Your task to perform on an android device: Search for "macbook pro 15 inch" on target, select the first entry, add it to the cart, then select checkout. Image 0: 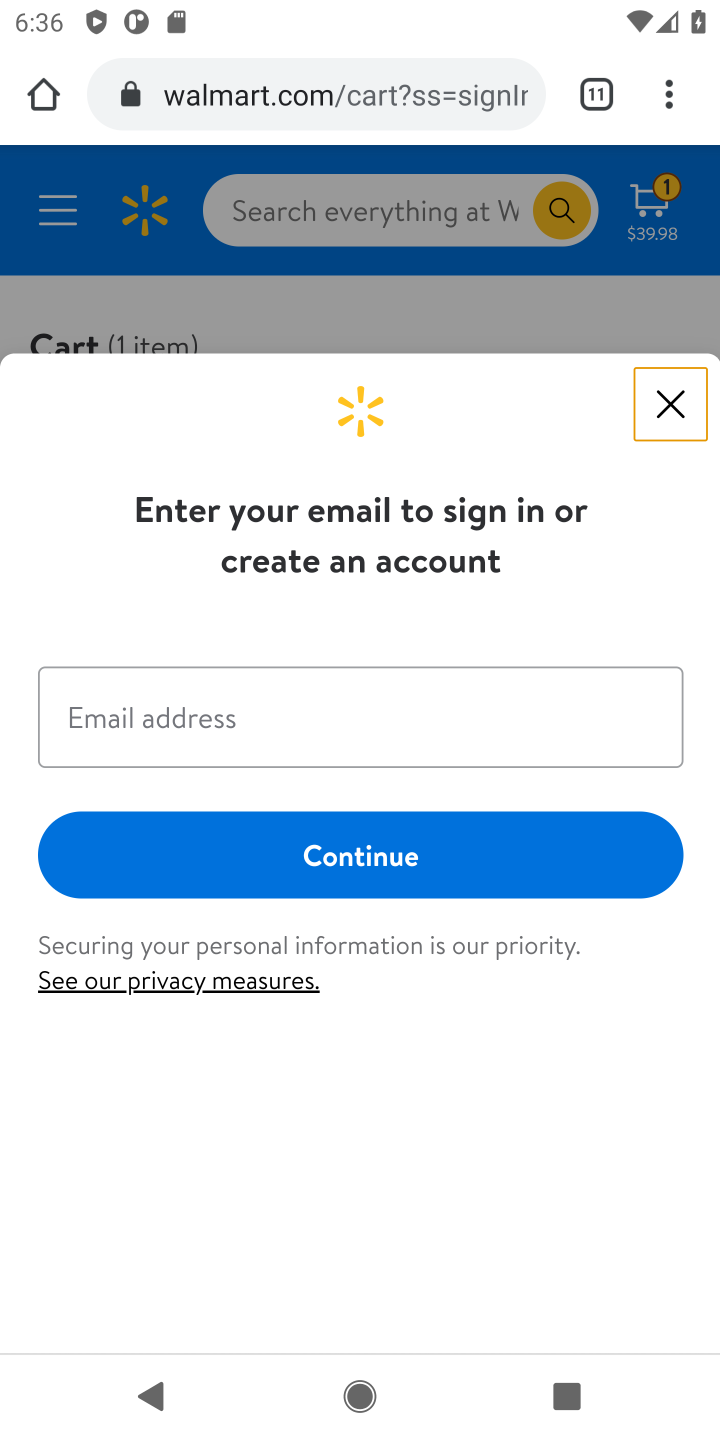
Step 0: press home button
Your task to perform on an android device: Search for "macbook pro 15 inch" on target, select the first entry, add it to the cart, then select checkout. Image 1: 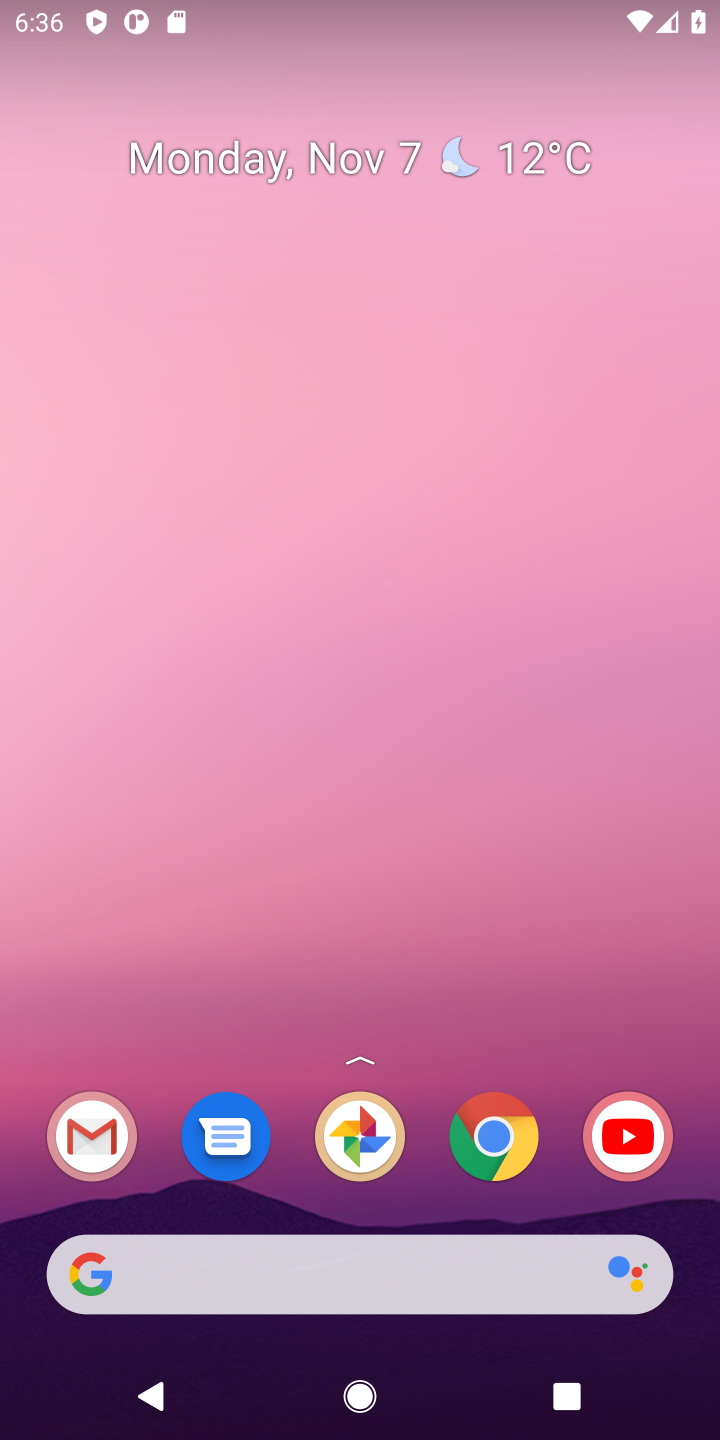
Step 1: click (225, 1269)
Your task to perform on an android device: Search for "macbook pro 15 inch" on target, select the first entry, add it to the cart, then select checkout. Image 2: 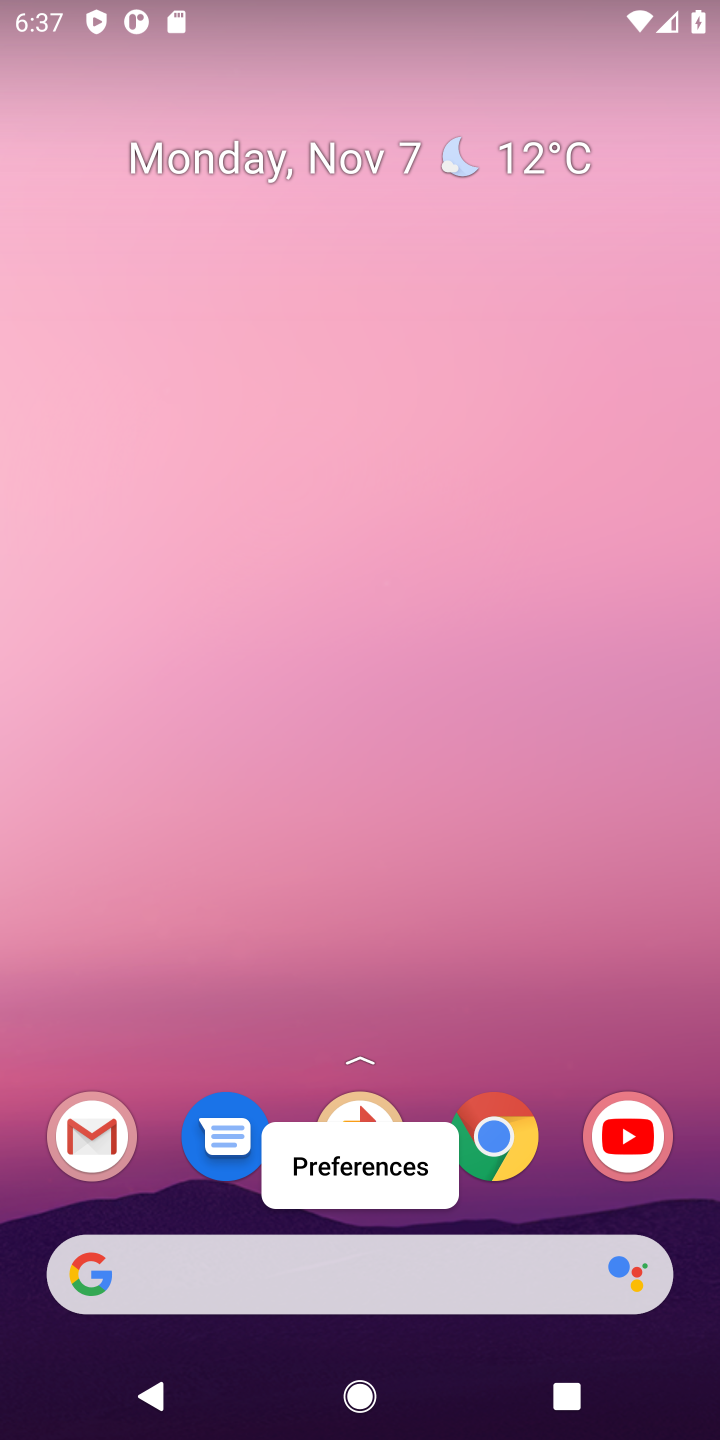
Step 2: click (142, 1273)
Your task to perform on an android device: Search for "macbook pro 15 inch" on target, select the first entry, add it to the cart, then select checkout. Image 3: 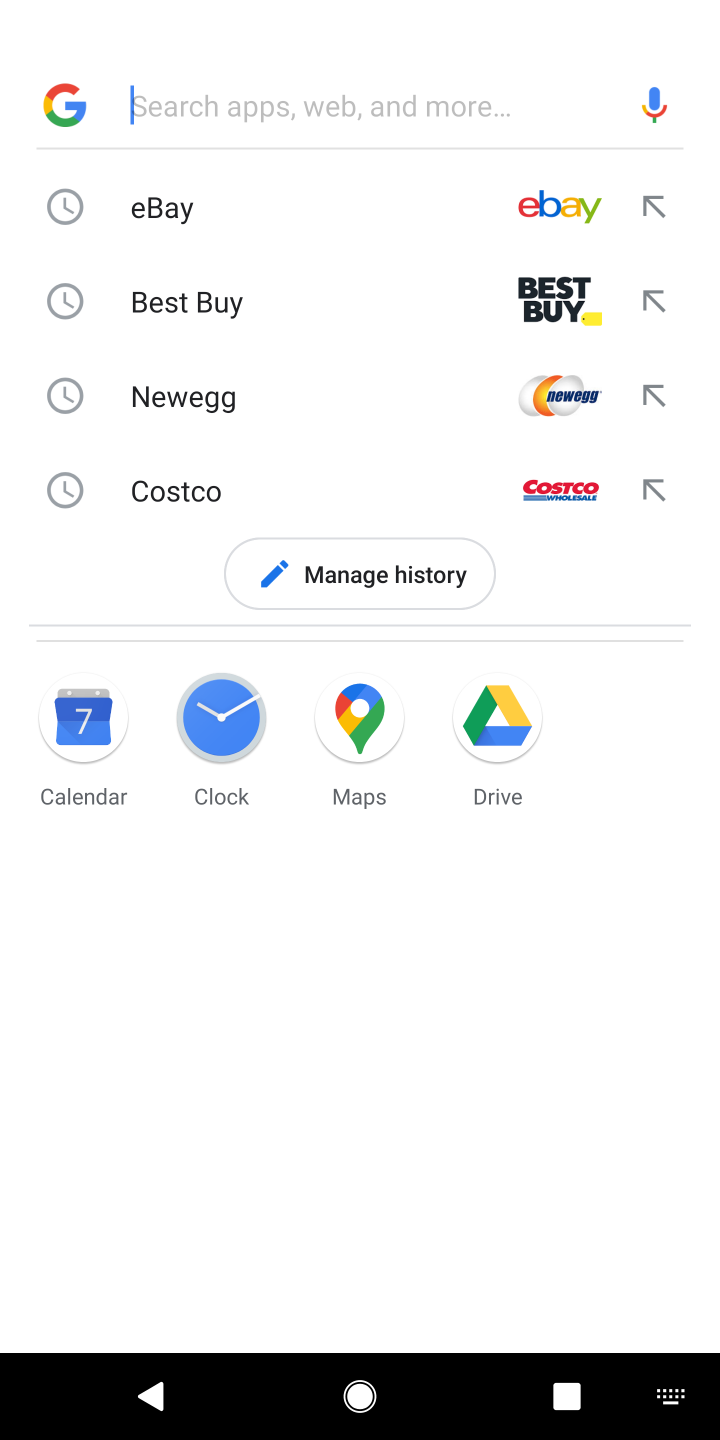
Step 3: type "target"
Your task to perform on an android device: Search for "macbook pro 15 inch" on target, select the first entry, add it to the cart, then select checkout. Image 4: 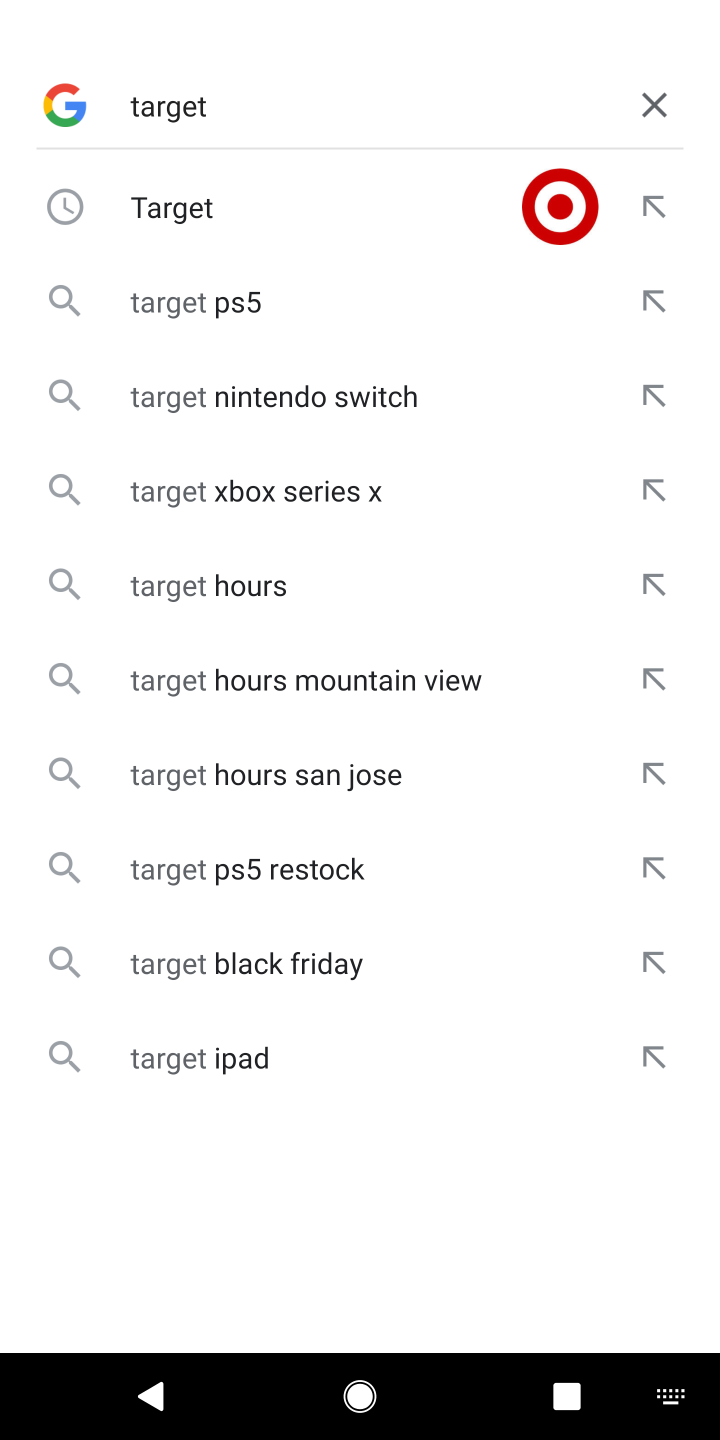
Step 4: type ""
Your task to perform on an android device: Search for "macbook pro 15 inch" on target, select the first entry, add it to the cart, then select checkout. Image 5: 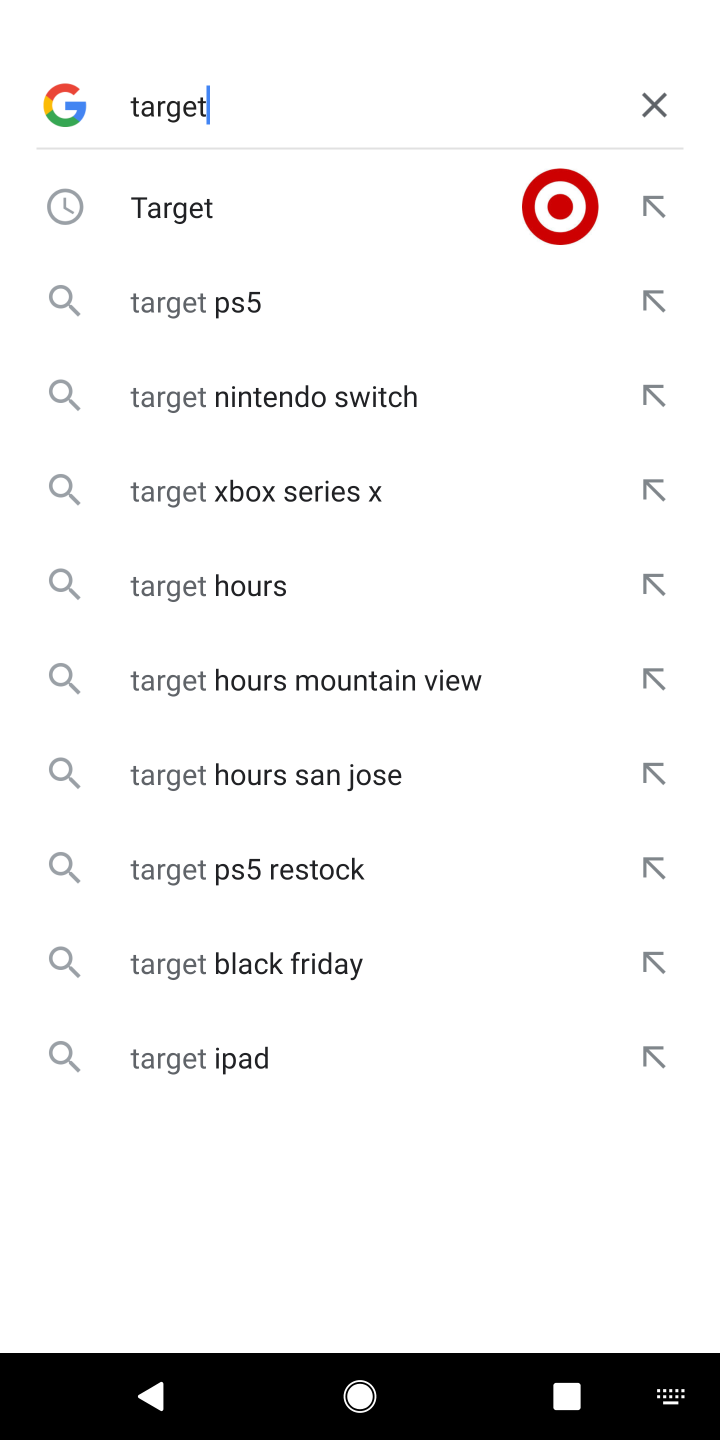
Step 5: click (174, 206)
Your task to perform on an android device: Search for "macbook pro 15 inch" on target, select the first entry, add it to the cart, then select checkout. Image 6: 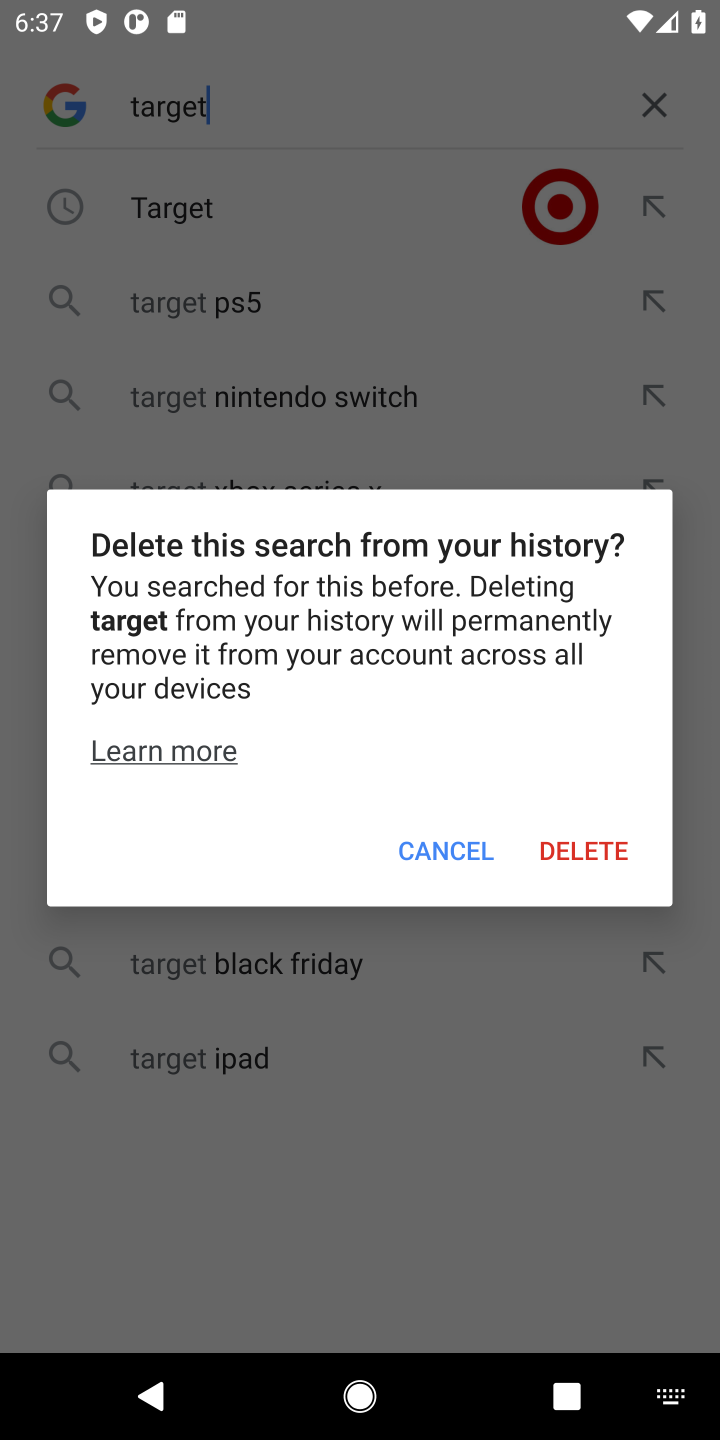
Step 6: click (581, 846)
Your task to perform on an android device: Search for "macbook pro 15 inch" on target, select the first entry, add it to the cart, then select checkout. Image 7: 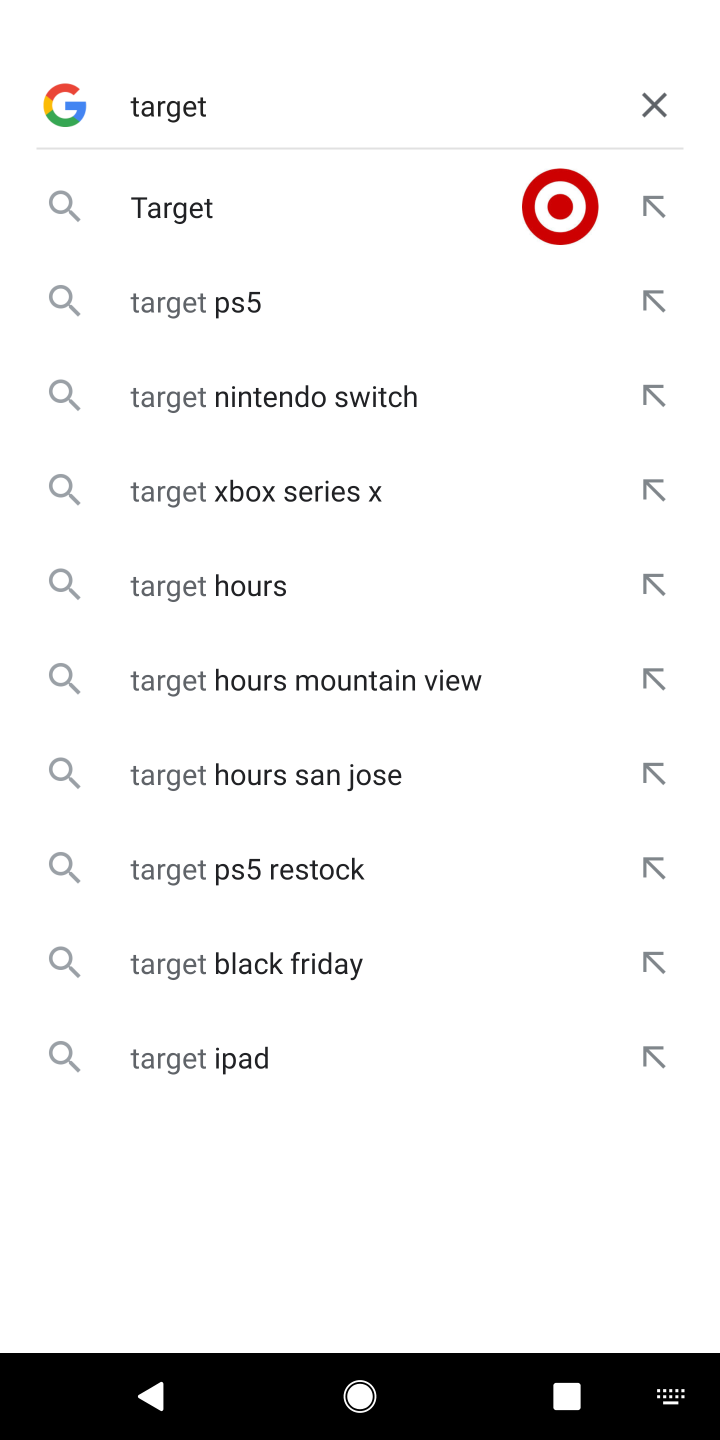
Step 7: click (165, 203)
Your task to perform on an android device: Search for "macbook pro 15 inch" on target, select the first entry, add it to the cart, then select checkout. Image 8: 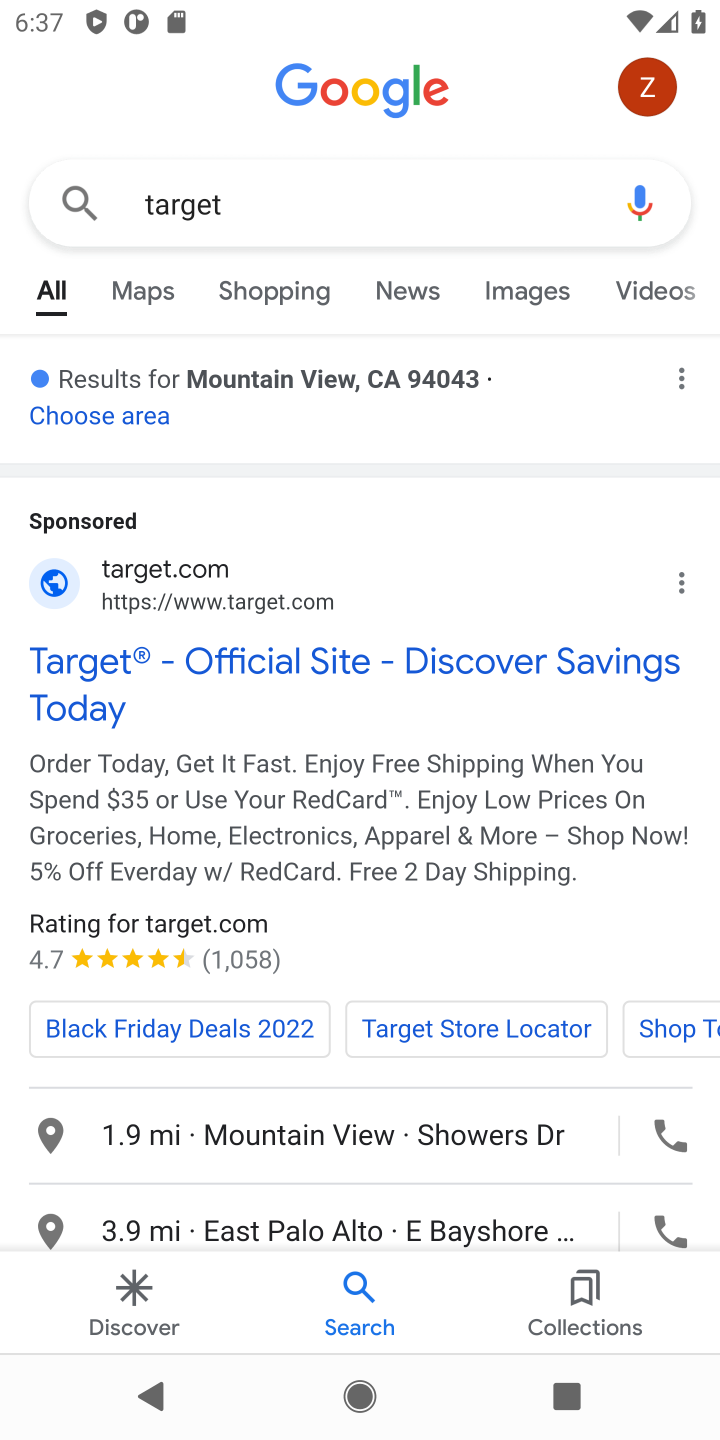
Step 8: click (143, 574)
Your task to perform on an android device: Search for "macbook pro 15 inch" on target, select the first entry, add it to the cart, then select checkout. Image 9: 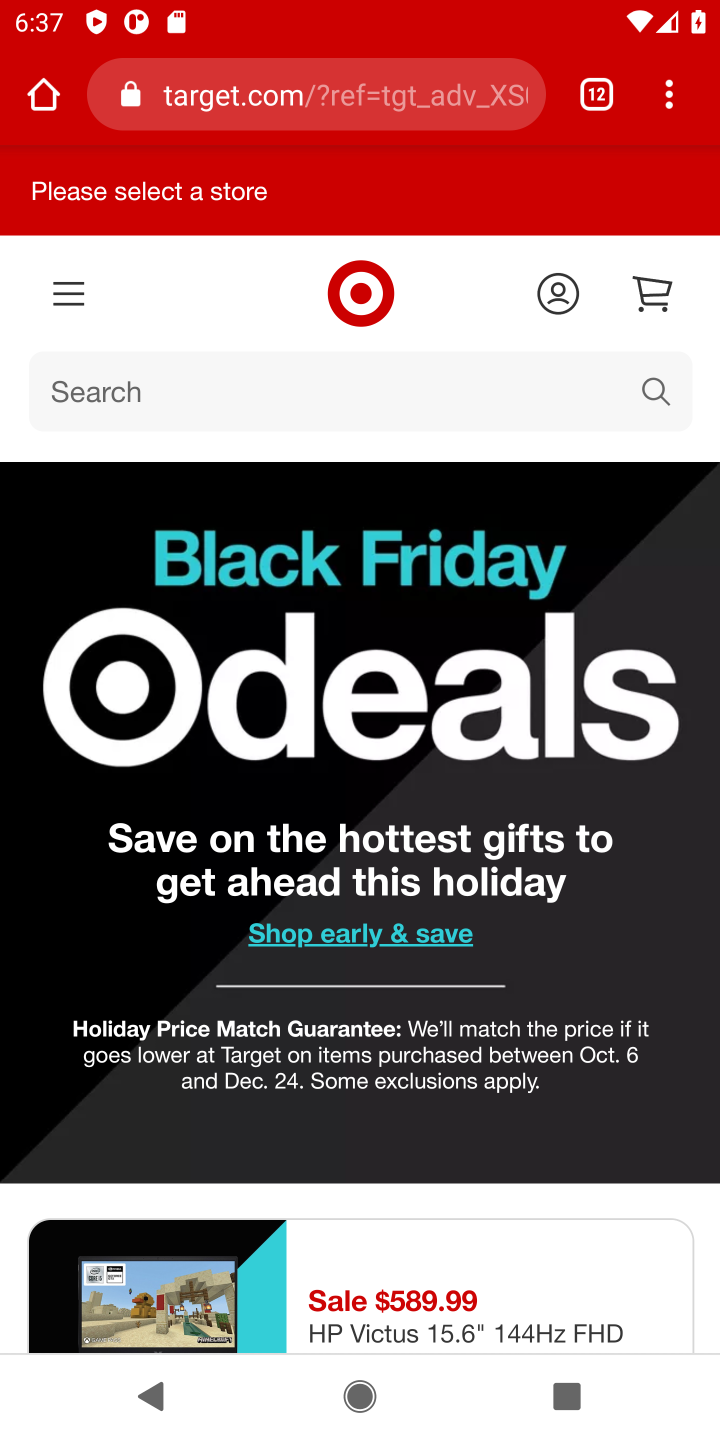
Step 9: click (172, 386)
Your task to perform on an android device: Search for "macbook pro 15 inch" on target, select the first entry, add it to the cart, then select checkout. Image 10: 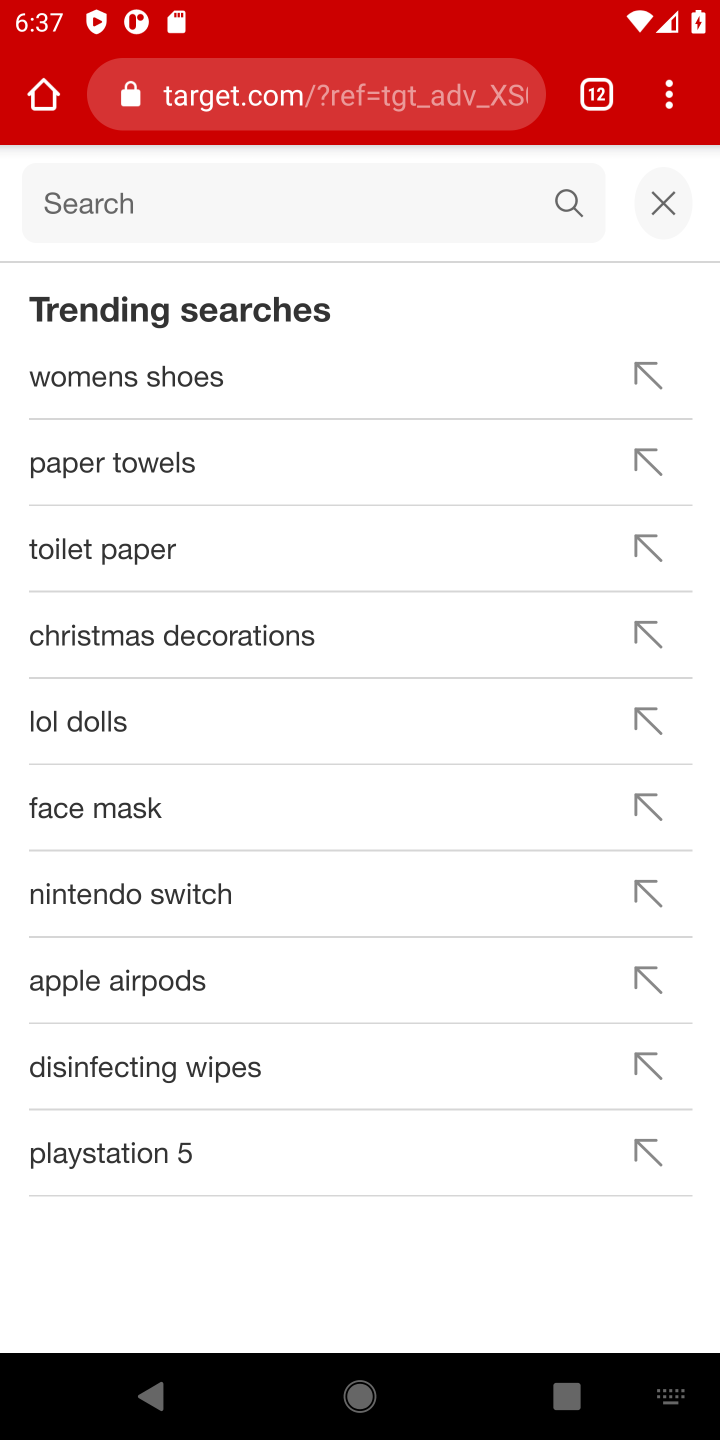
Step 10: type "macbook pro 15 inch"
Your task to perform on an android device: Search for "macbook pro 15 inch" on target, select the first entry, add it to the cart, then select checkout. Image 11: 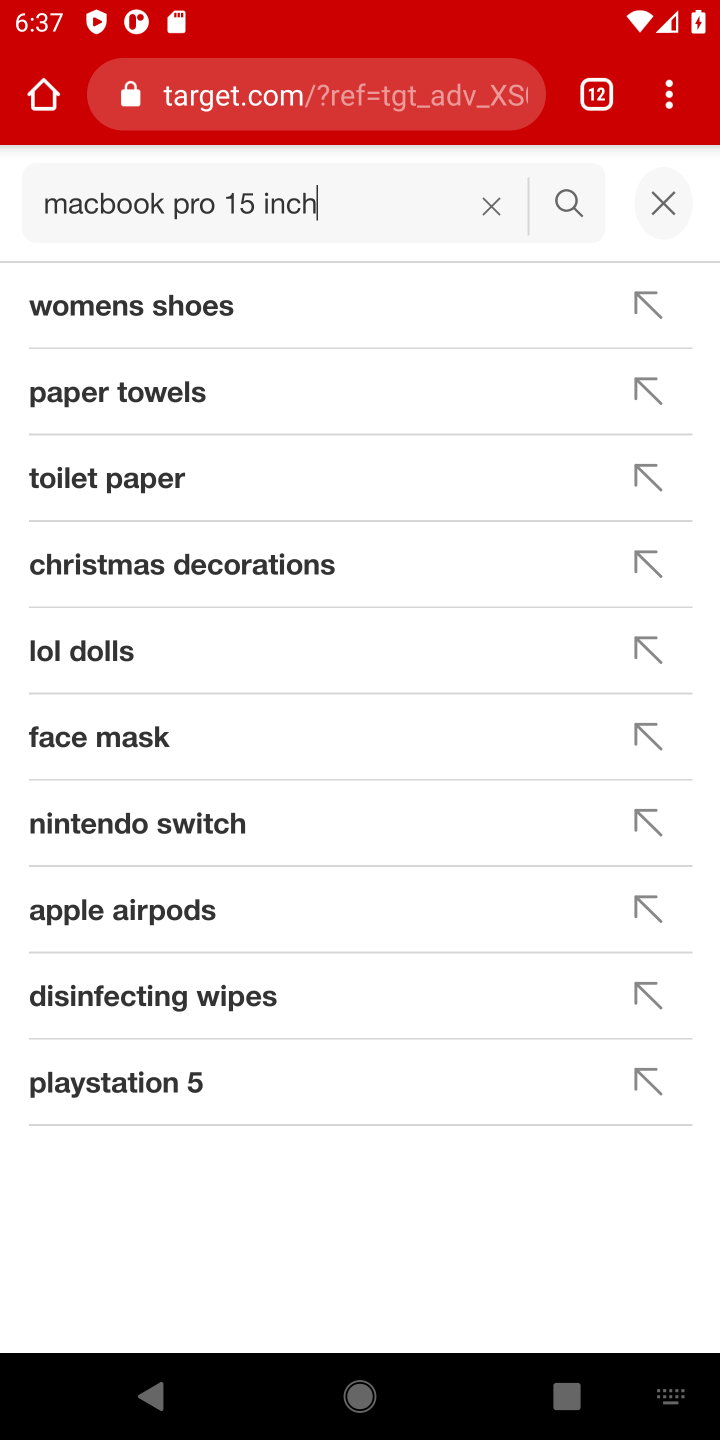
Step 11: type ""
Your task to perform on an android device: Search for "macbook pro 15 inch" on target, select the first entry, add it to the cart, then select checkout. Image 12: 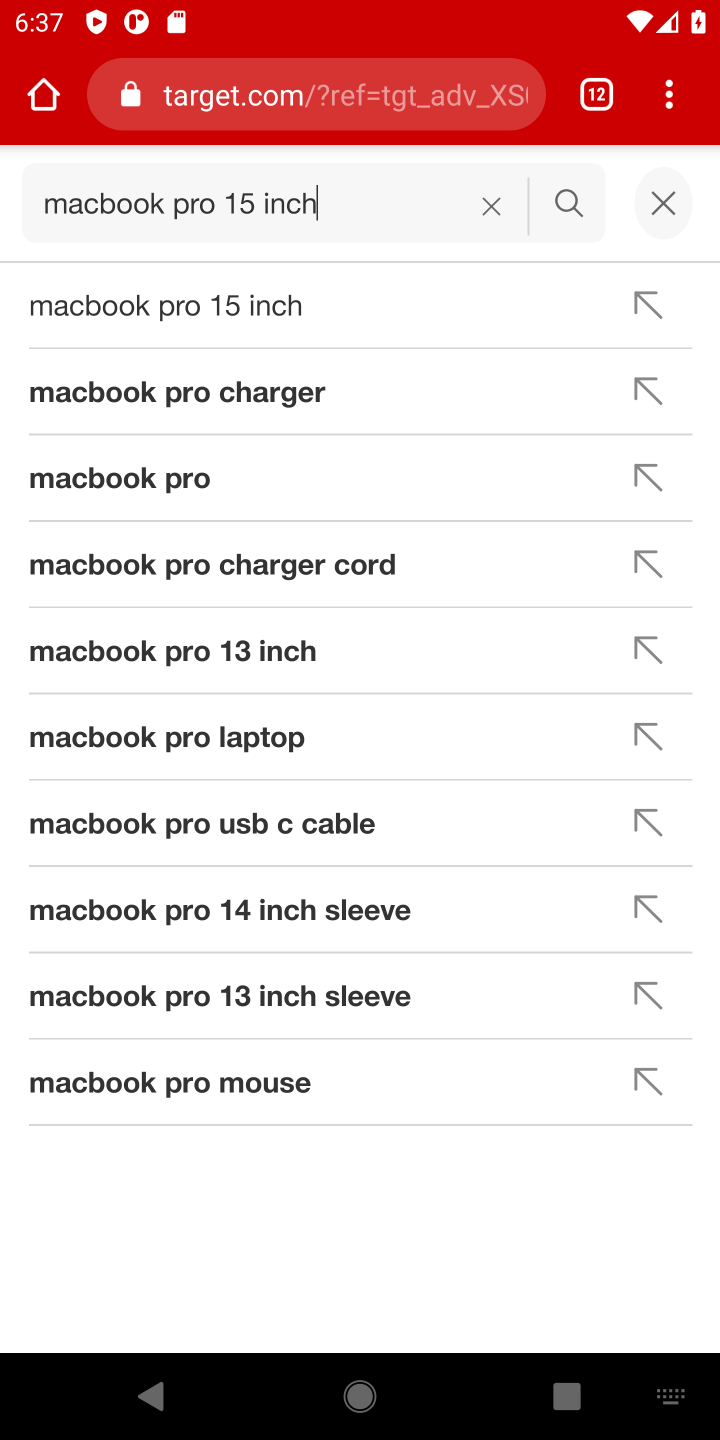
Step 12: click (274, 297)
Your task to perform on an android device: Search for "macbook pro 15 inch" on target, select the first entry, add it to the cart, then select checkout. Image 13: 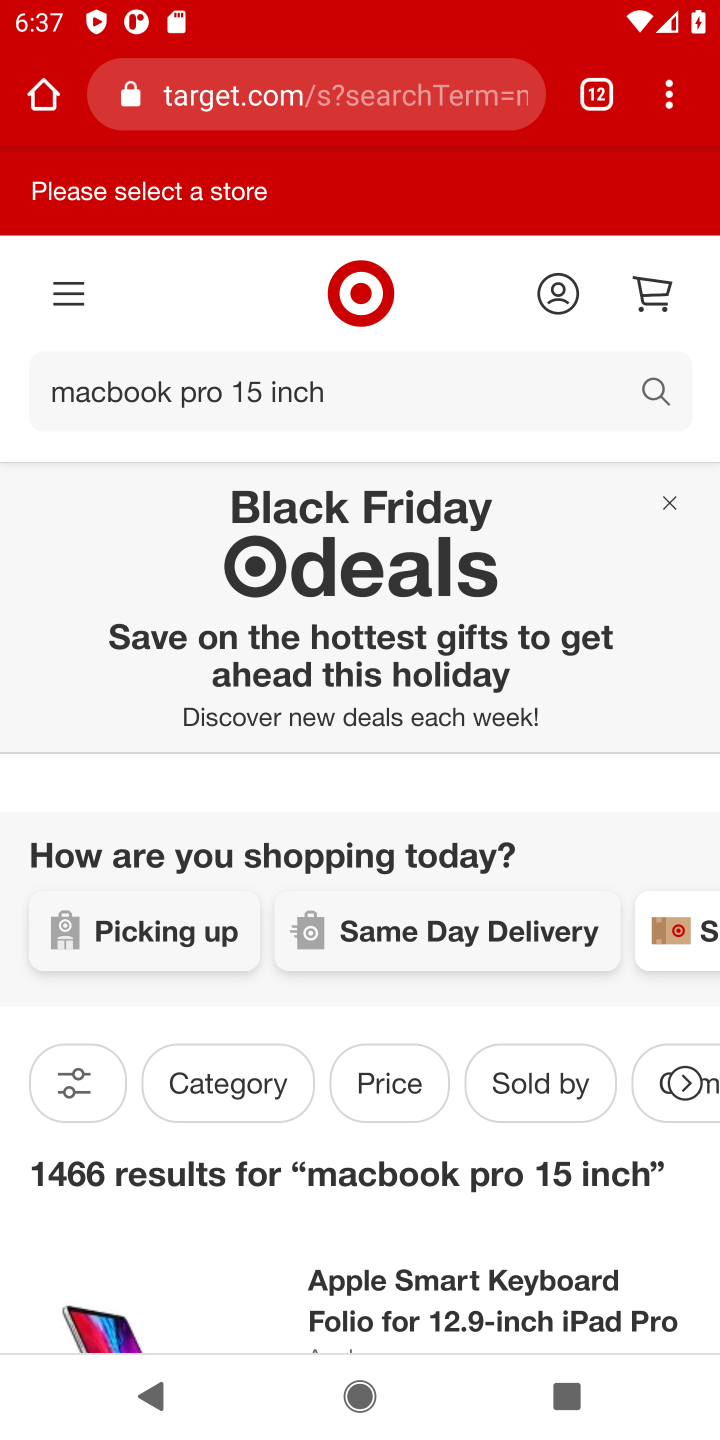
Step 13: drag from (501, 781) to (612, 36)
Your task to perform on an android device: Search for "macbook pro 15 inch" on target, select the first entry, add it to the cart, then select checkout. Image 14: 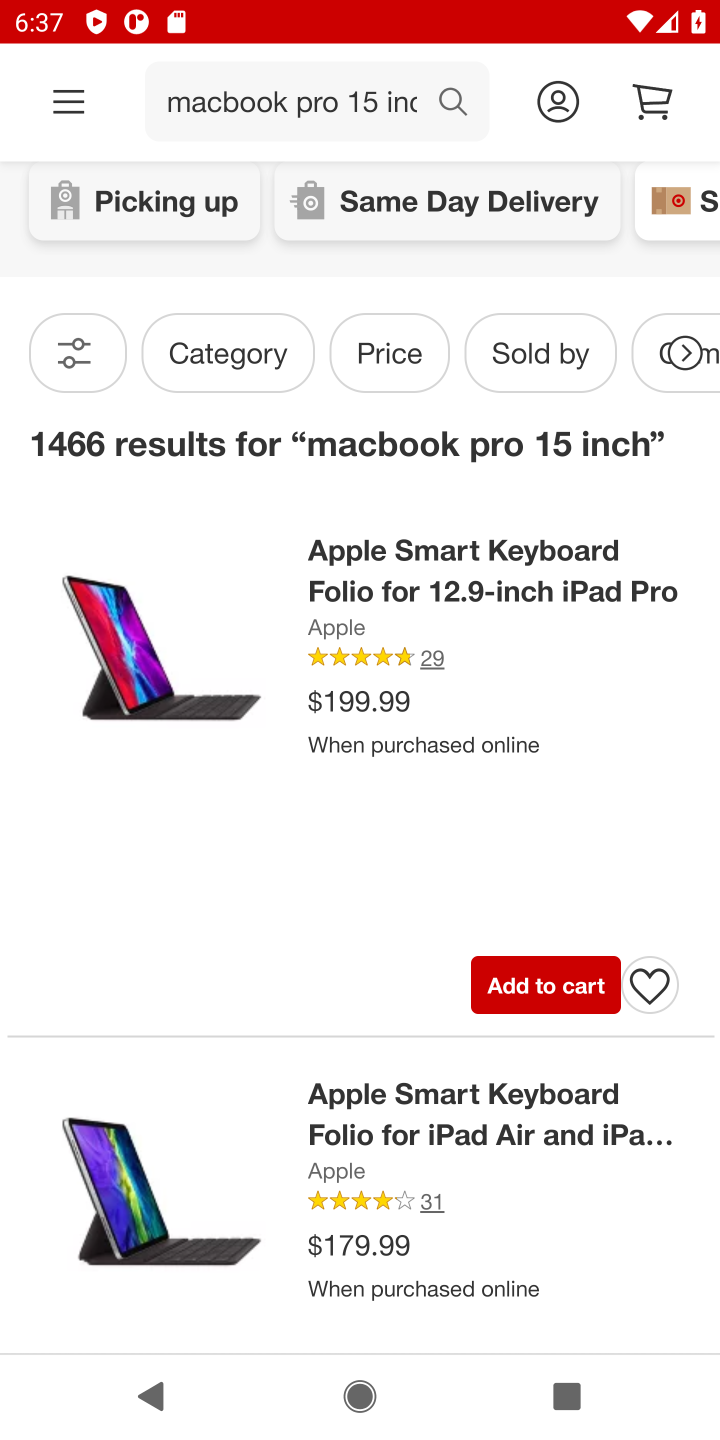
Step 14: click (532, 981)
Your task to perform on an android device: Search for "macbook pro 15 inch" on target, select the first entry, add it to the cart, then select checkout. Image 15: 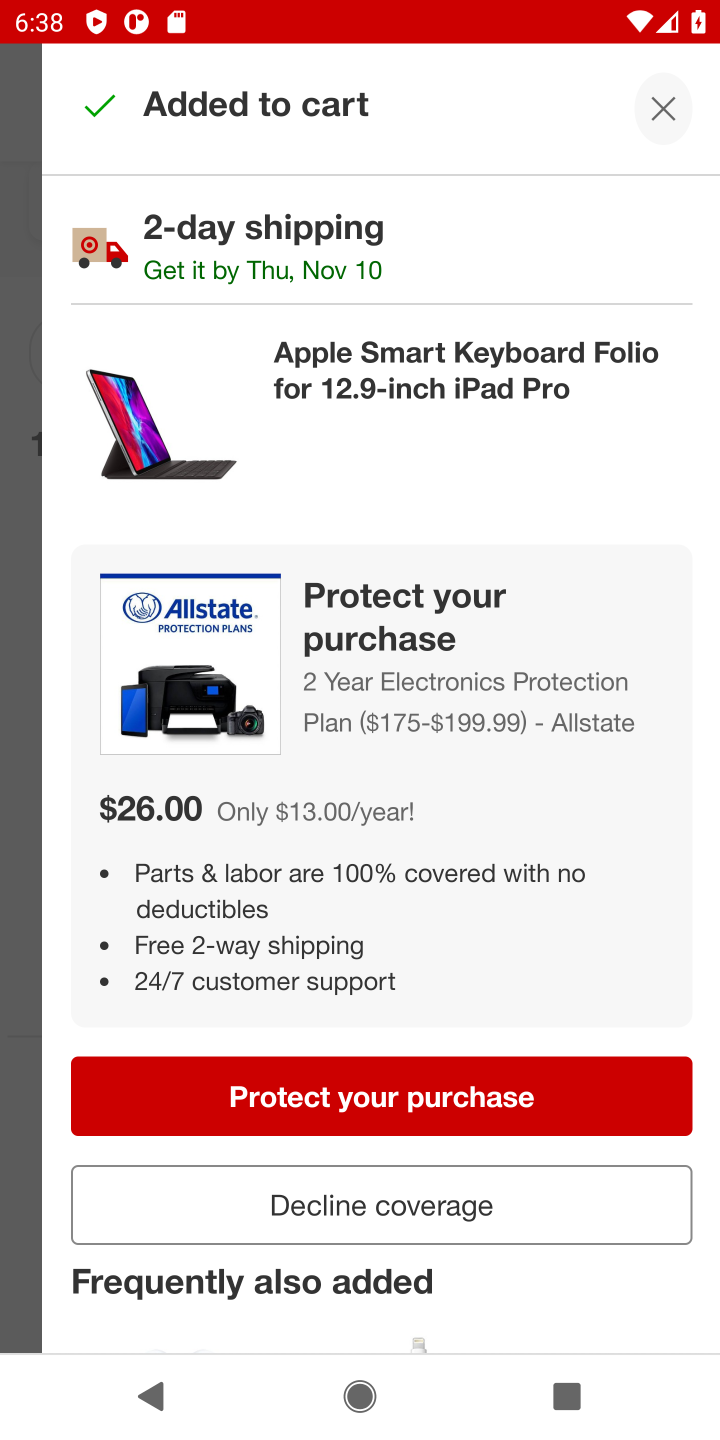
Step 15: click (659, 101)
Your task to perform on an android device: Search for "macbook pro 15 inch" on target, select the first entry, add it to the cart, then select checkout. Image 16: 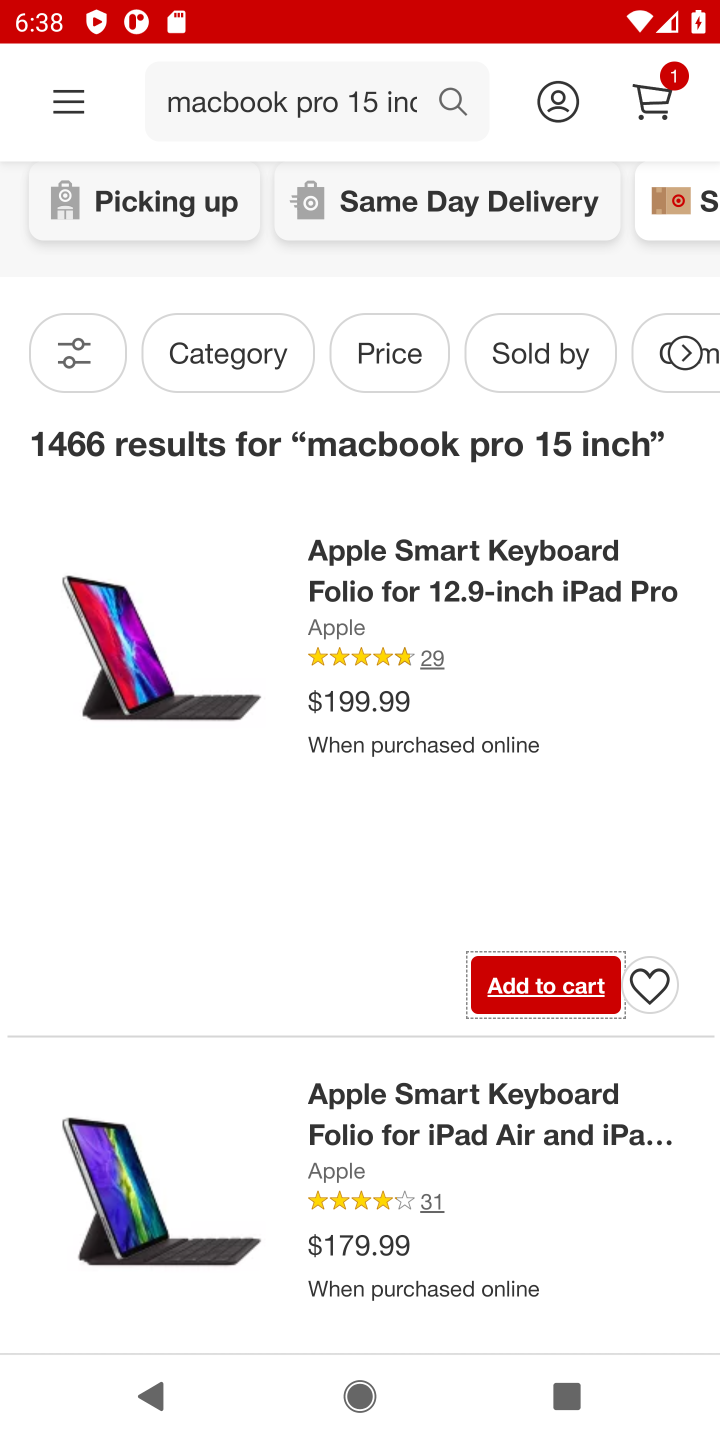
Step 16: click (668, 88)
Your task to perform on an android device: Search for "macbook pro 15 inch" on target, select the first entry, add it to the cart, then select checkout. Image 17: 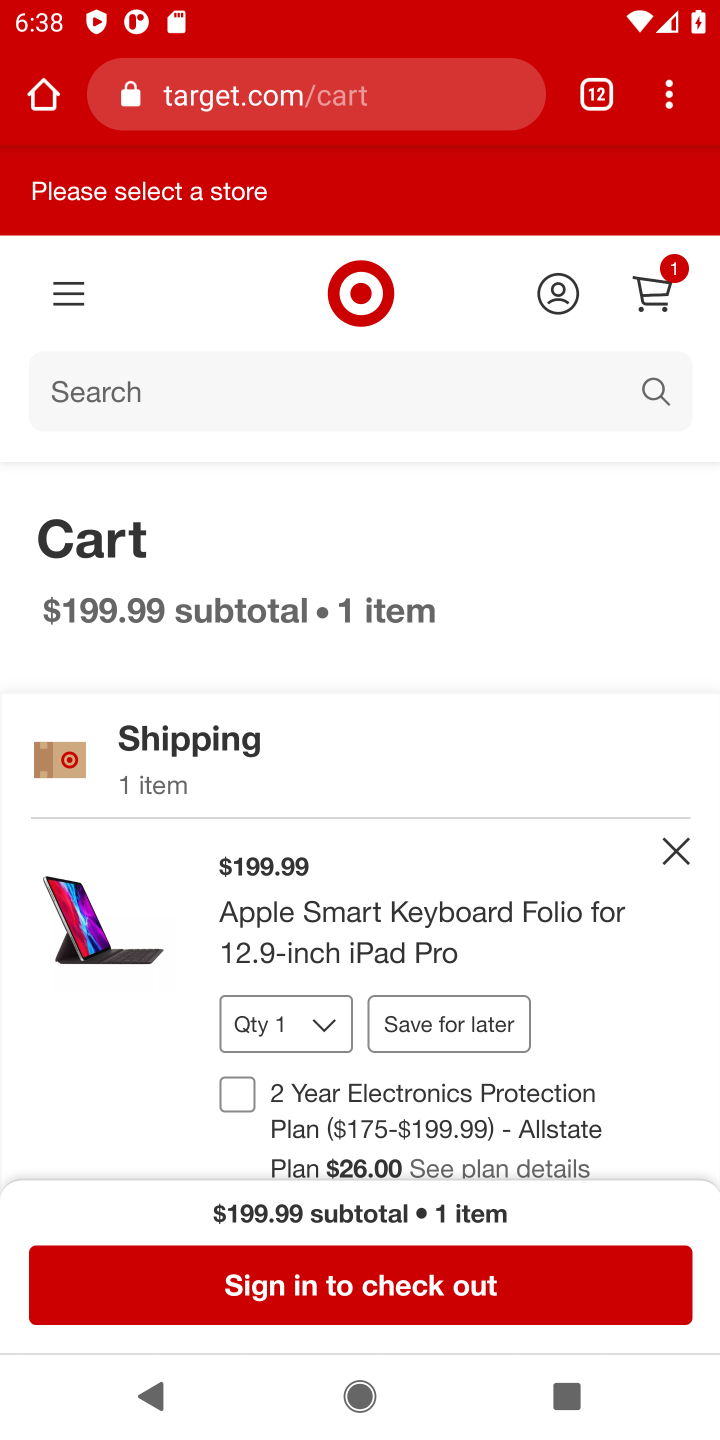
Step 17: click (327, 1296)
Your task to perform on an android device: Search for "macbook pro 15 inch" on target, select the first entry, add it to the cart, then select checkout. Image 18: 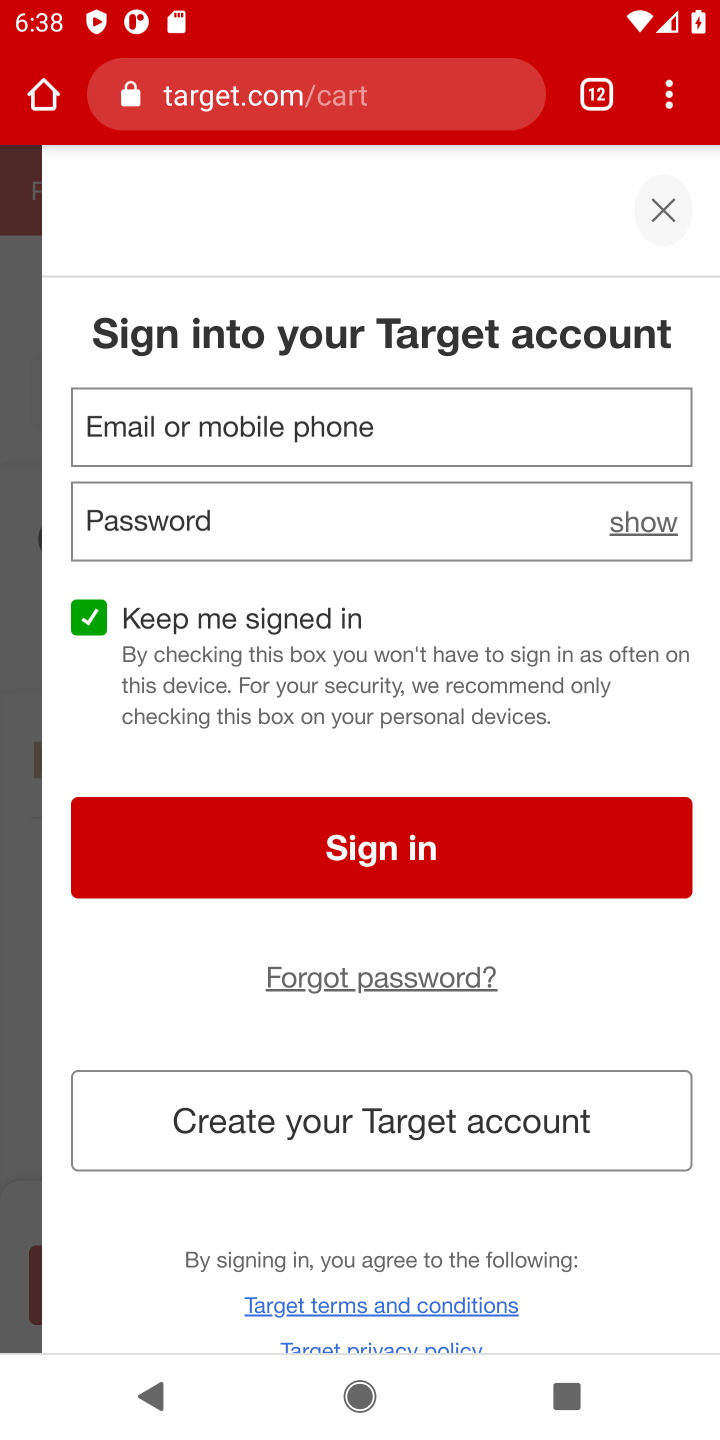
Step 18: task complete